Your task to perform on an android device: Empty the shopping cart on amazon. Search for rayovac triple a on amazon, select the first entry, add it to the cart, then select checkout. Image 0: 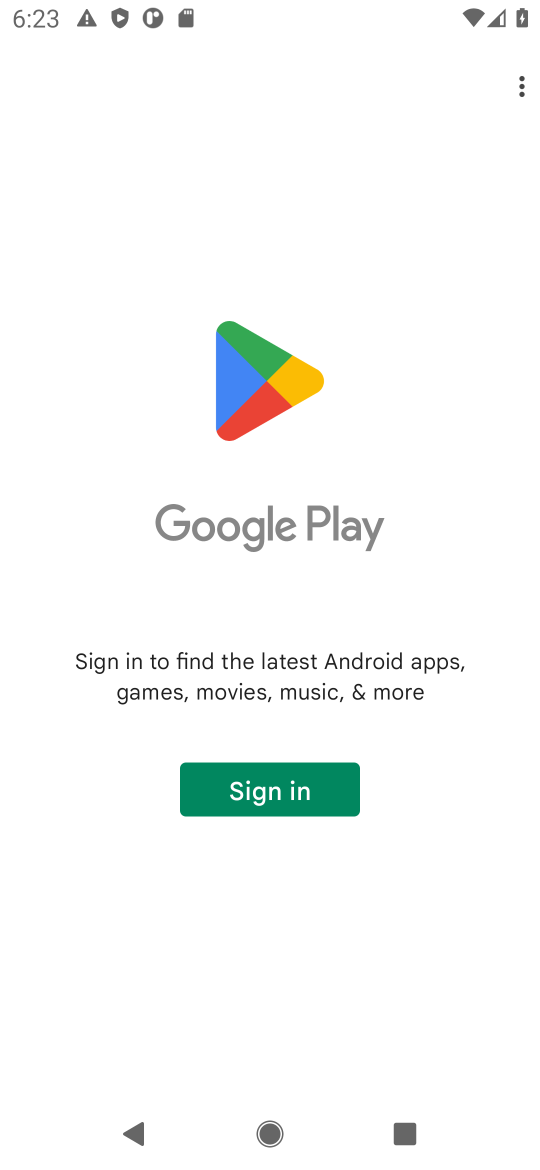
Step 0: press home button
Your task to perform on an android device: Empty the shopping cart on amazon. Search for rayovac triple a on amazon, select the first entry, add it to the cart, then select checkout. Image 1: 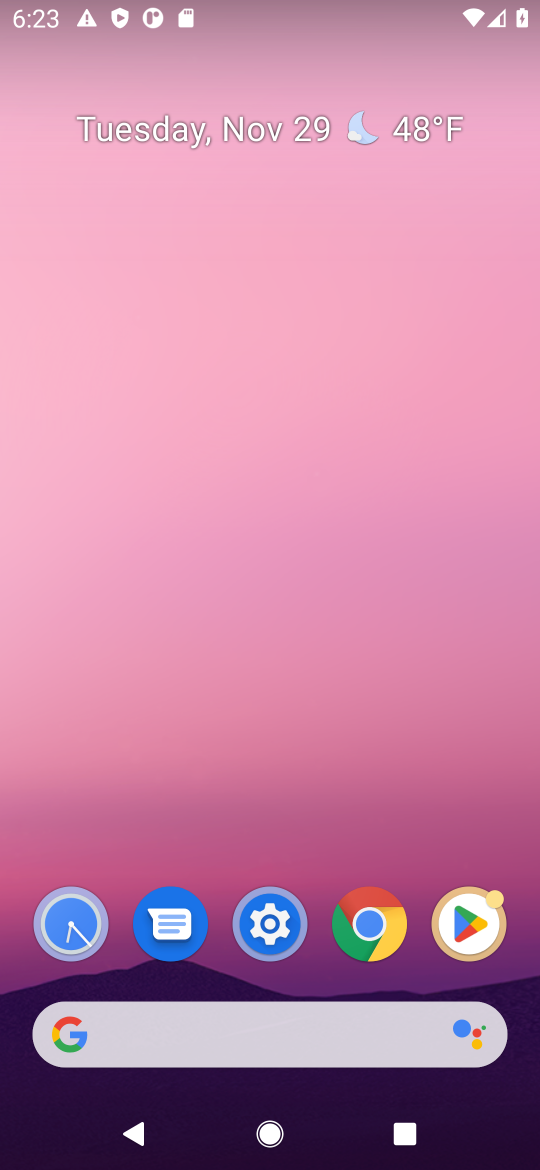
Step 1: click (256, 1040)
Your task to perform on an android device: Empty the shopping cart on amazon. Search for rayovac triple a on amazon, select the first entry, add it to the cart, then select checkout. Image 2: 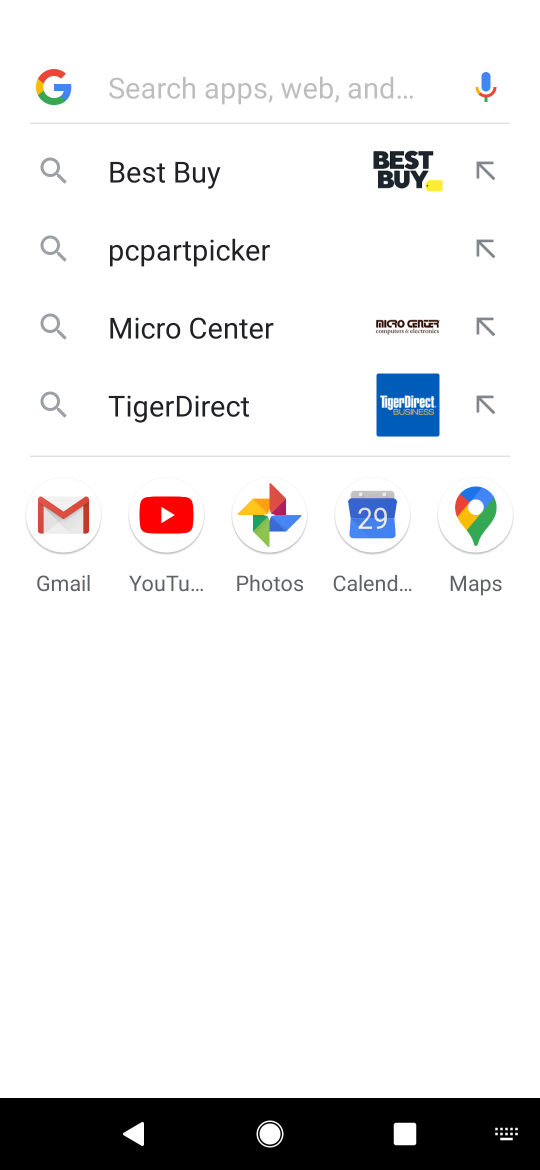
Step 2: type "amazon"
Your task to perform on an android device: Empty the shopping cart on amazon. Search for rayovac triple a on amazon, select the first entry, add it to the cart, then select checkout. Image 3: 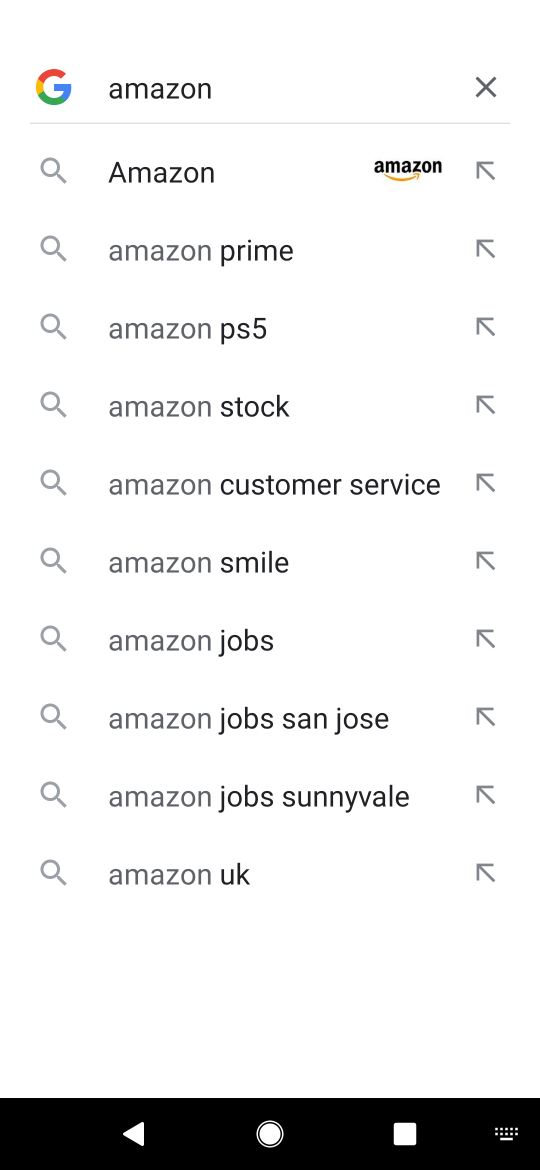
Step 3: click (203, 195)
Your task to perform on an android device: Empty the shopping cart on amazon. Search for rayovac triple a on amazon, select the first entry, add it to the cart, then select checkout. Image 4: 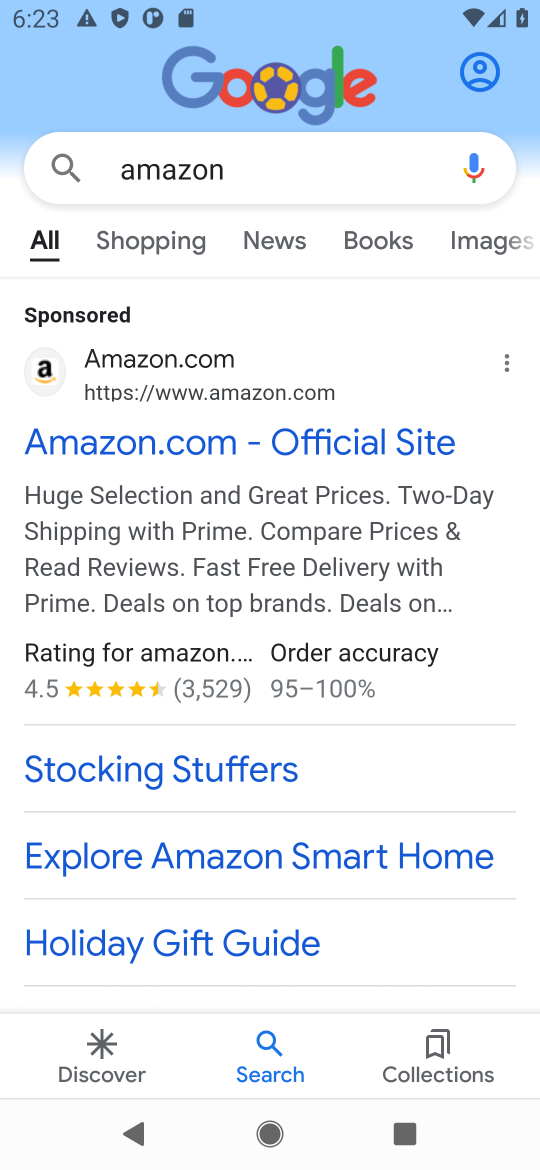
Step 4: click (186, 430)
Your task to perform on an android device: Empty the shopping cart on amazon. Search for rayovac triple a on amazon, select the first entry, add it to the cart, then select checkout. Image 5: 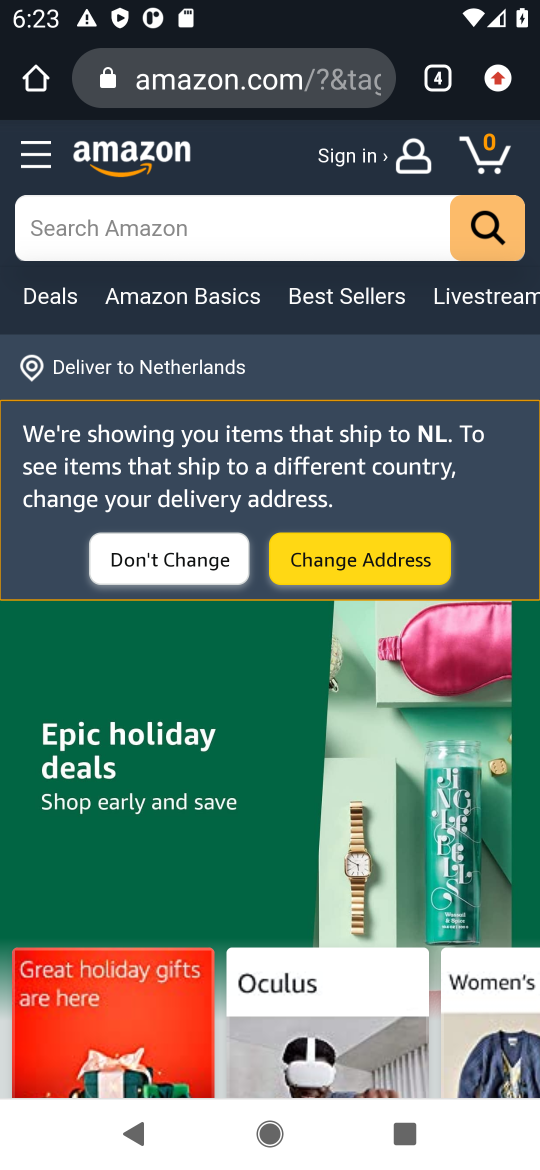
Step 5: click (209, 243)
Your task to perform on an android device: Empty the shopping cart on amazon. Search for rayovac triple a on amazon, select the first entry, add it to the cart, then select checkout. Image 6: 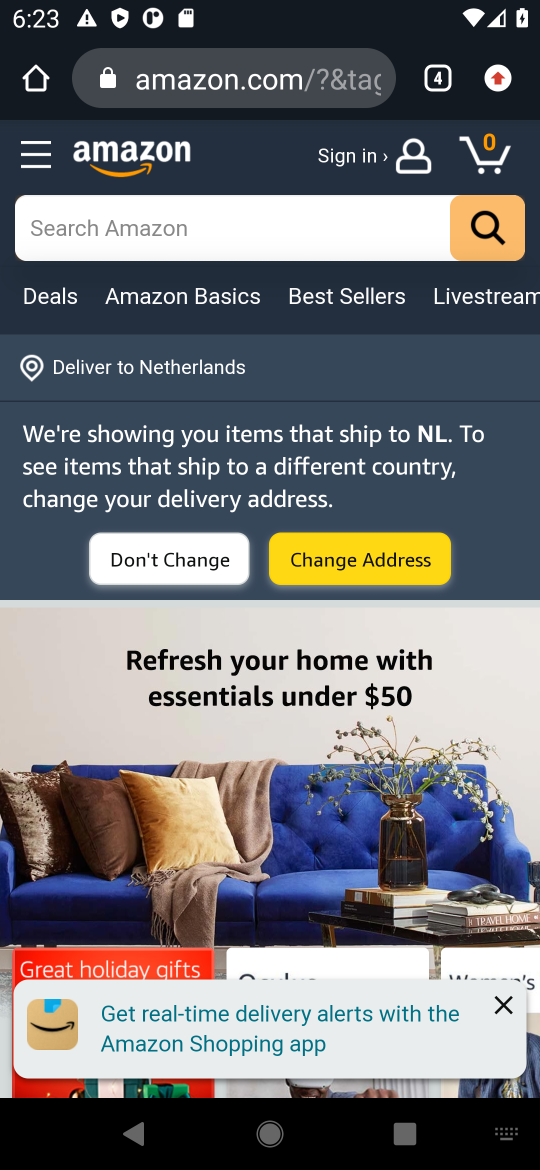
Step 6: type "rayovac"
Your task to perform on an android device: Empty the shopping cart on amazon. Search for rayovac triple a on amazon, select the first entry, add it to the cart, then select checkout. Image 7: 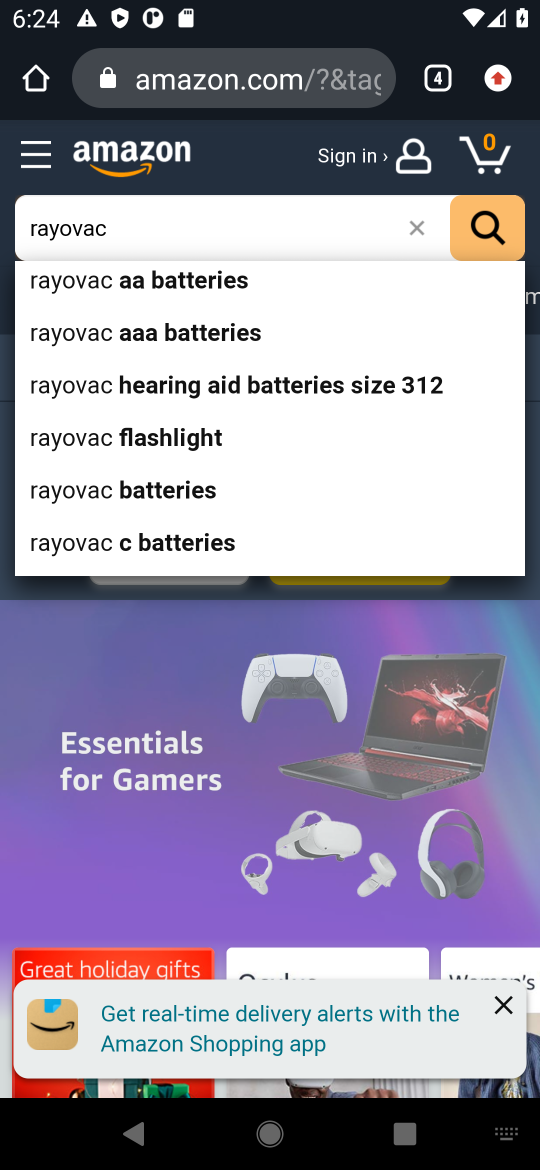
Step 7: click (235, 346)
Your task to perform on an android device: Empty the shopping cart on amazon. Search for rayovac triple a on amazon, select the first entry, add it to the cart, then select checkout. Image 8: 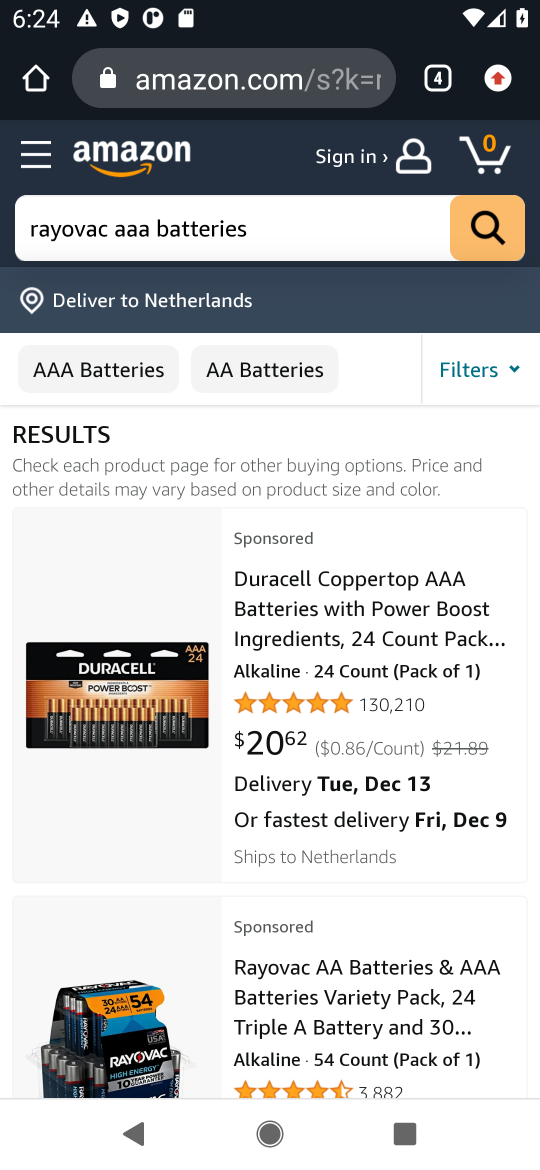
Step 8: click (319, 607)
Your task to perform on an android device: Empty the shopping cart on amazon. Search for rayovac triple a on amazon, select the first entry, add it to the cart, then select checkout. Image 9: 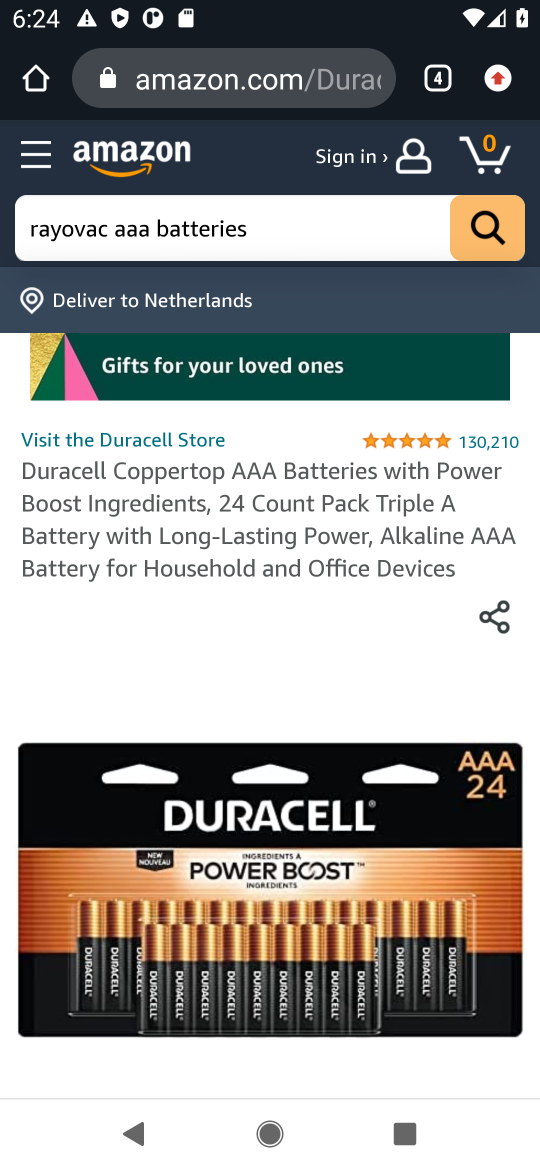
Step 9: click (480, 236)
Your task to perform on an android device: Empty the shopping cart on amazon. Search for rayovac triple a on amazon, select the first entry, add it to the cart, then select checkout. Image 10: 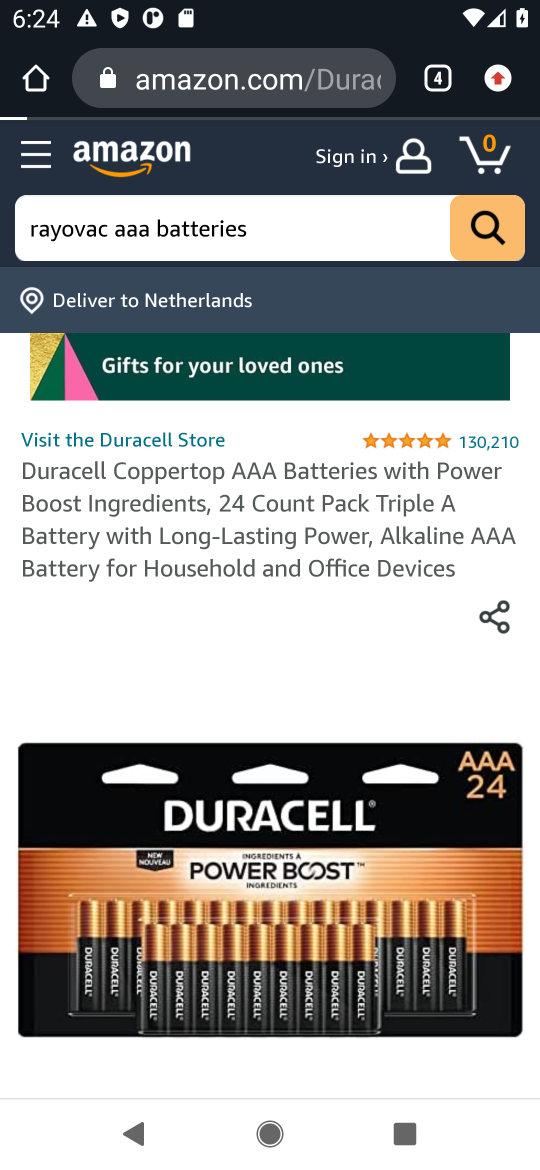
Step 10: task complete